Your task to perform on an android device: Go to Google Image 0: 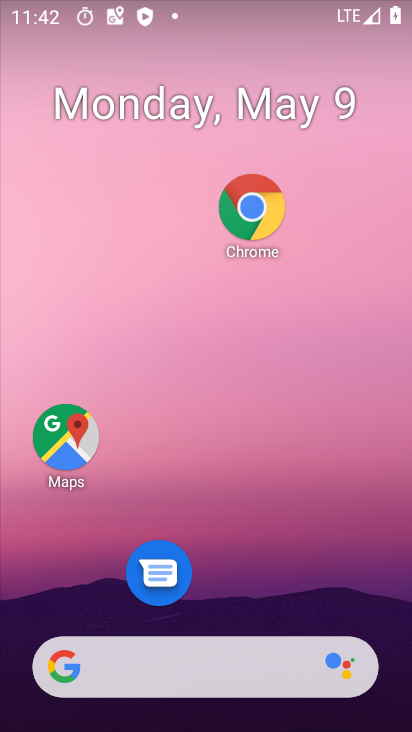
Step 0: drag from (239, 571) to (258, 58)
Your task to perform on an android device: Go to Google Image 1: 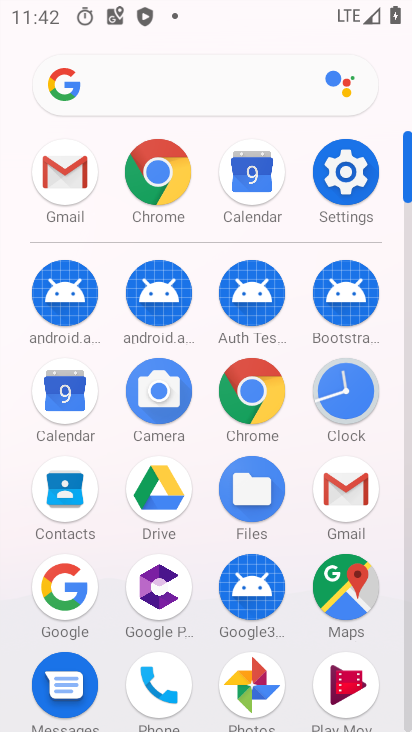
Step 1: click (60, 590)
Your task to perform on an android device: Go to Google Image 2: 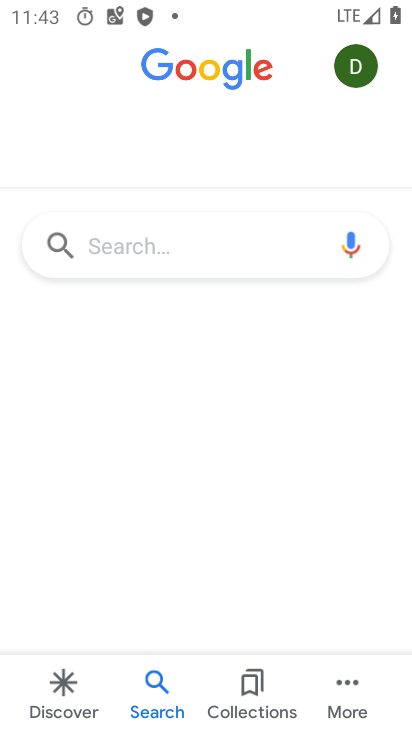
Step 2: task complete